Your task to perform on an android device: Open Youtube and go to the subscriptions tab Image 0: 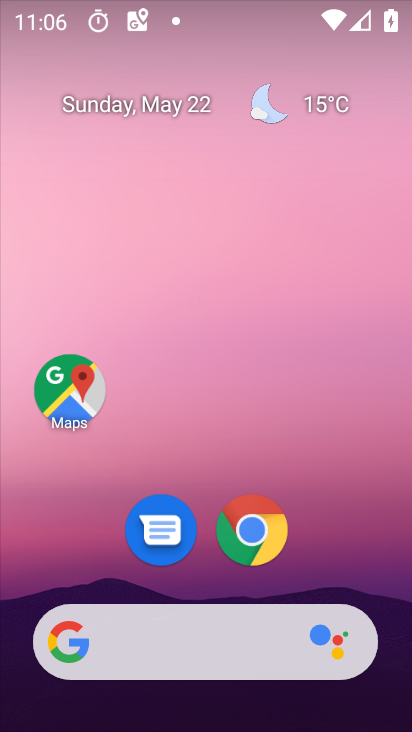
Step 0: click (385, 421)
Your task to perform on an android device: Open Youtube and go to the subscriptions tab Image 1: 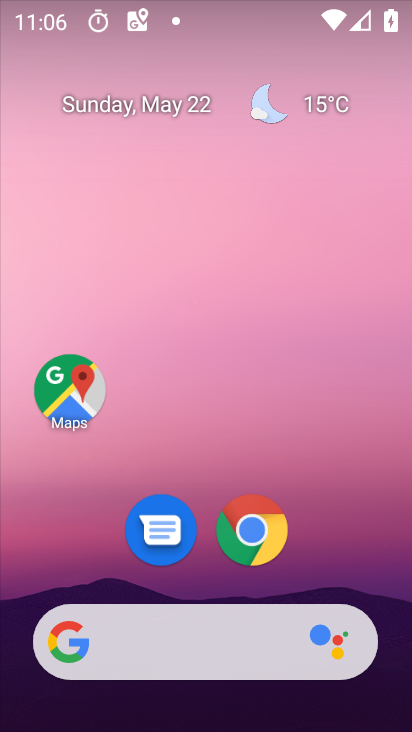
Step 1: click (393, 239)
Your task to perform on an android device: Open Youtube and go to the subscriptions tab Image 2: 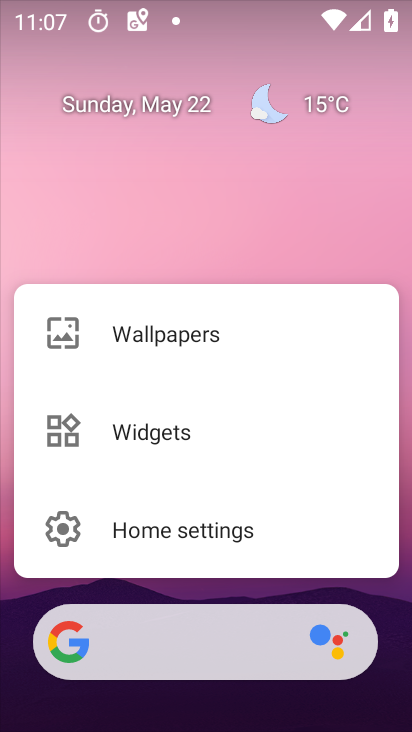
Step 2: click (339, 243)
Your task to perform on an android device: Open Youtube and go to the subscriptions tab Image 3: 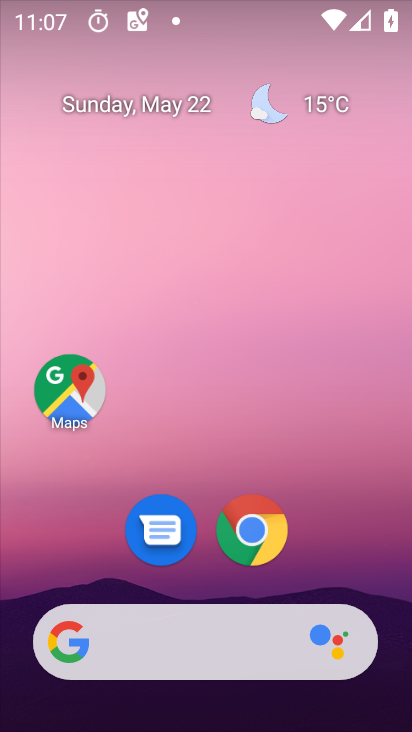
Step 3: drag from (402, 577) to (405, 240)
Your task to perform on an android device: Open Youtube and go to the subscriptions tab Image 4: 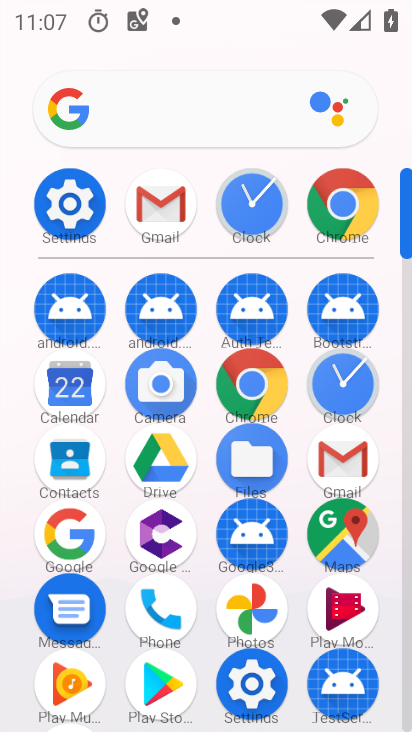
Step 4: drag from (403, 179) to (411, 99)
Your task to perform on an android device: Open Youtube and go to the subscriptions tab Image 5: 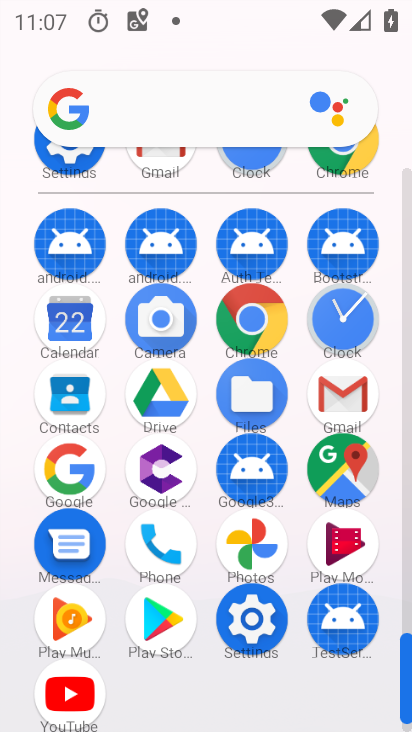
Step 5: click (67, 696)
Your task to perform on an android device: Open Youtube and go to the subscriptions tab Image 6: 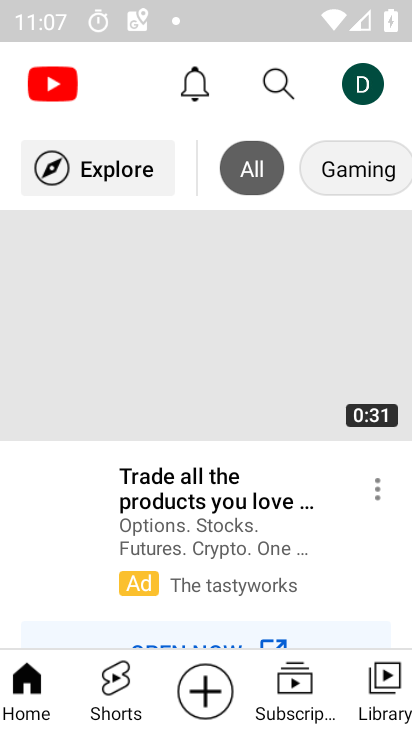
Step 6: click (271, 689)
Your task to perform on an android device: Open Youtube and go to the subscriptions tab Image 7: 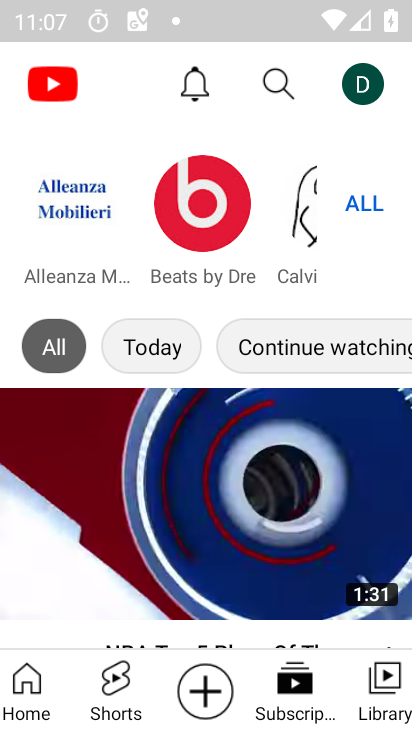
Step 7: task complete